Your task to perform on an android device: Open network settings Image 0: 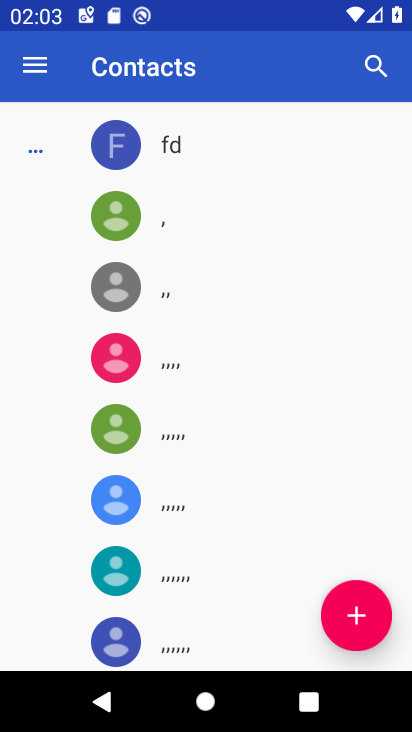
Step 0: press home button
Your task to perform on an android device: Open network settings Image 1: 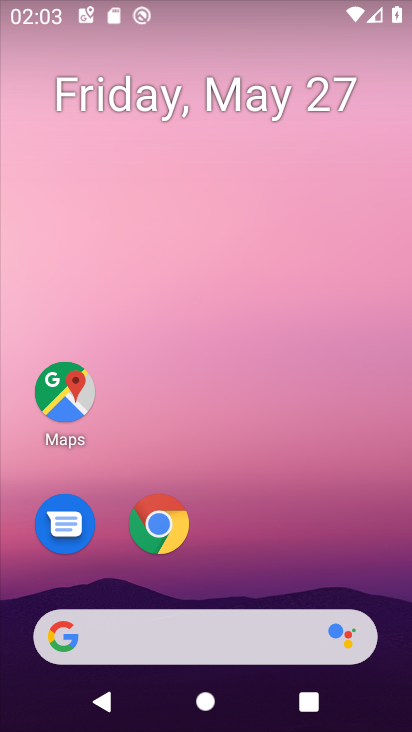
Step 1: drag from (249, 548) to (223, 23)
Your task to perform on an android device: Open network settings Image 2: 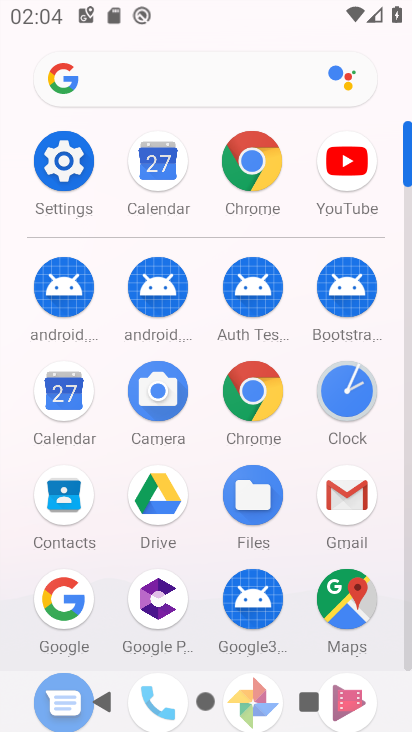
Step 2: click (63, 156)
Your task to perform on an android device: Open network settings Image 3: 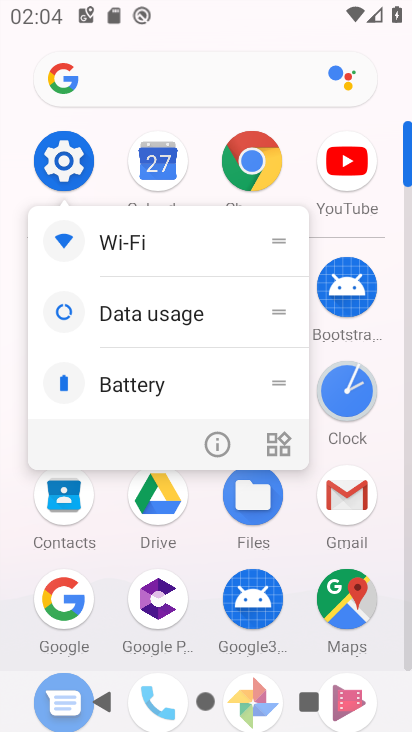
Step 3: click (63, 156)
Your task to perform on an android device: Open network settings Image 4: 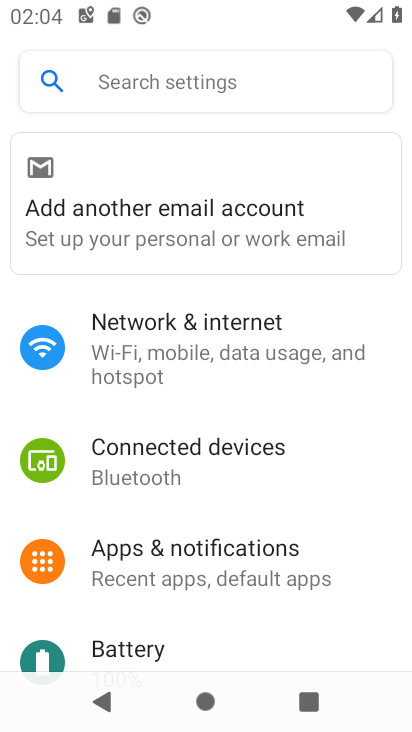
Step 4: click (199, 335)
Your task to perform on an android device: Open network settings Image 5: 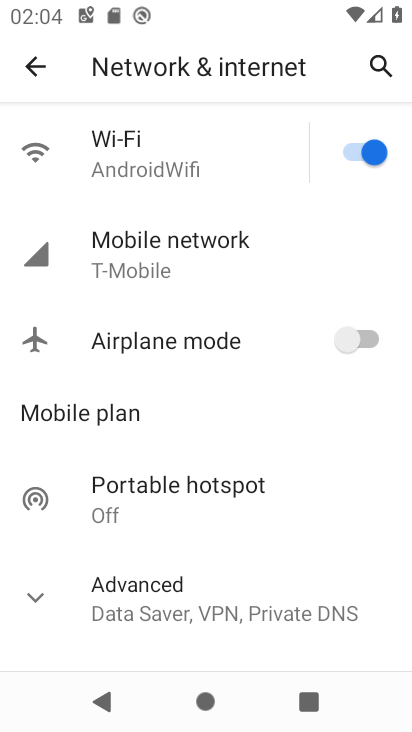
Step 5: task complete